Your task to perform on an android device: Go to CNN.com Image 0: 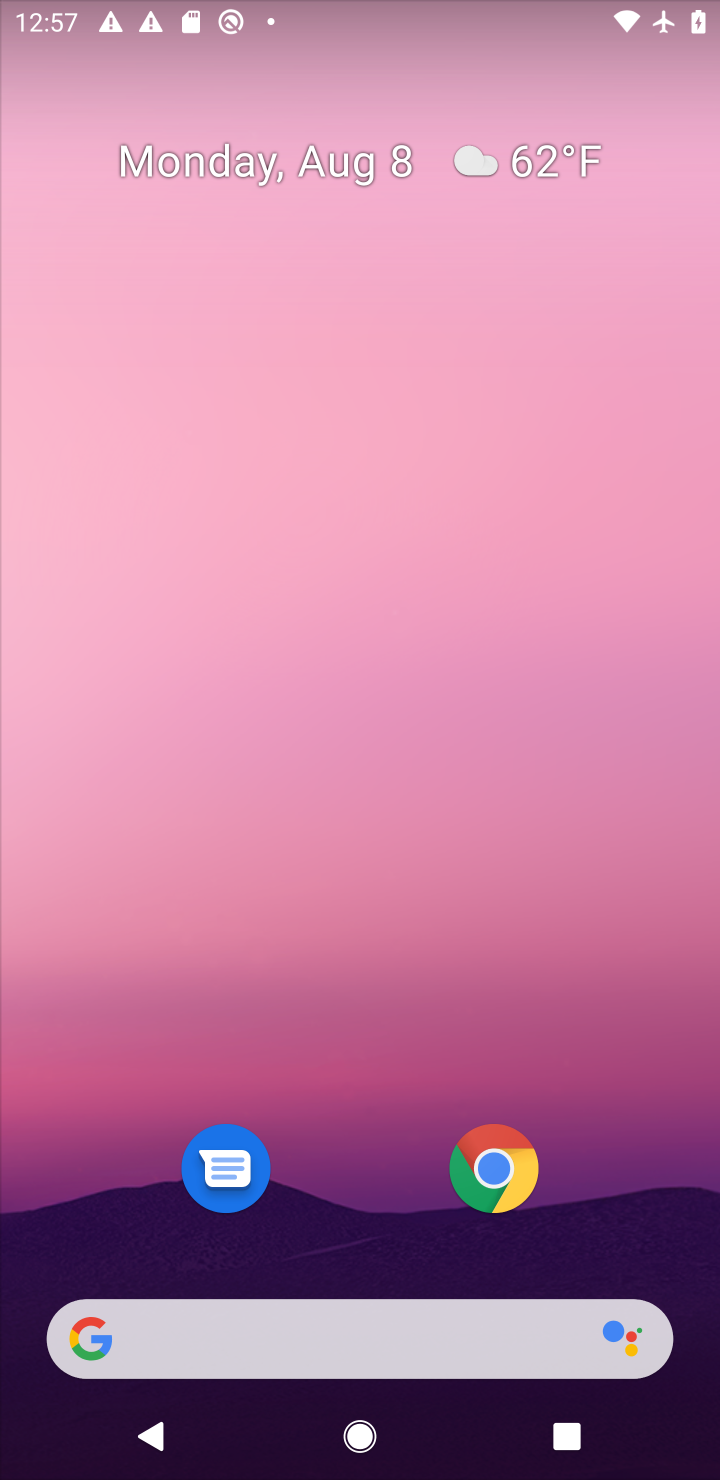
Step 0: drag from (375, 1269) to (336, 157)
Your task to perform on an android device: Go to CNN.com Image 1: 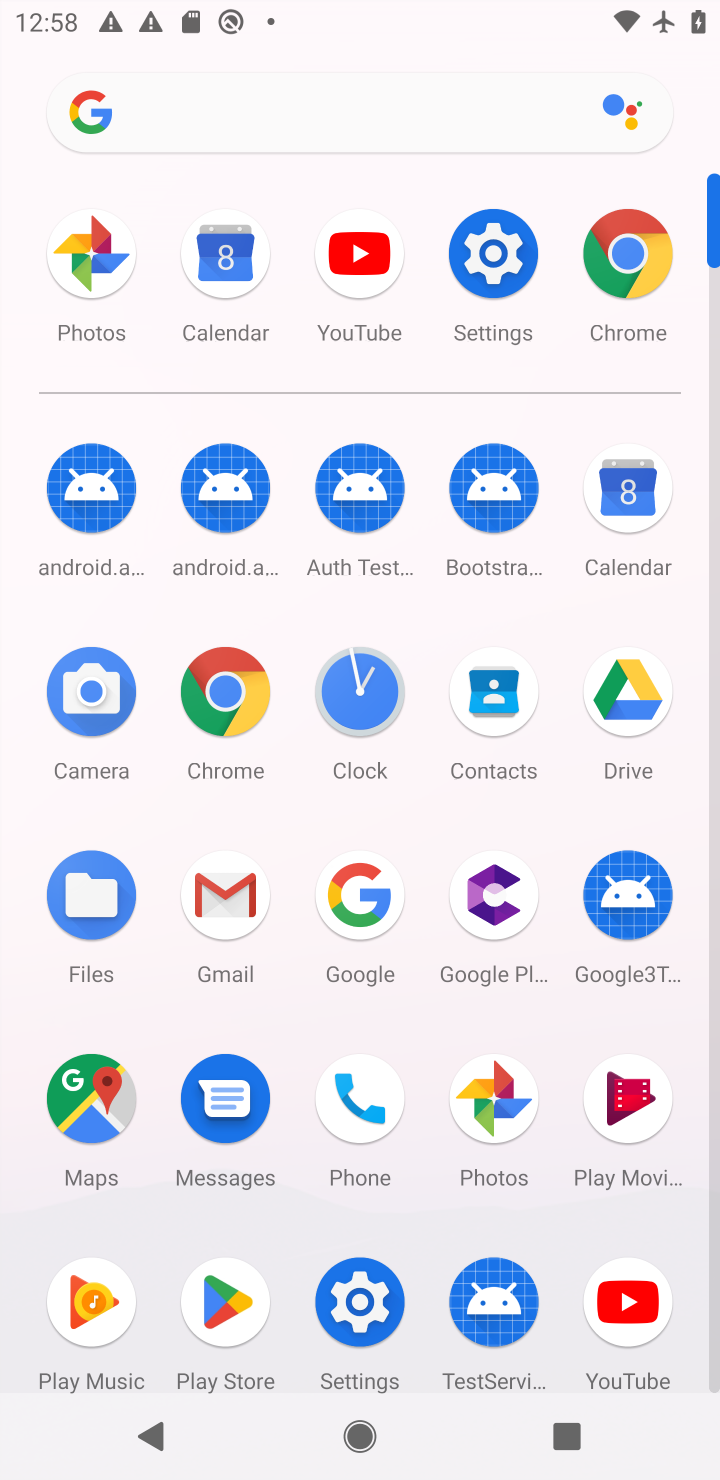
Step 1: click (347, 1308)
Your task to perform on an android device: Go to CNN.com Image 2: 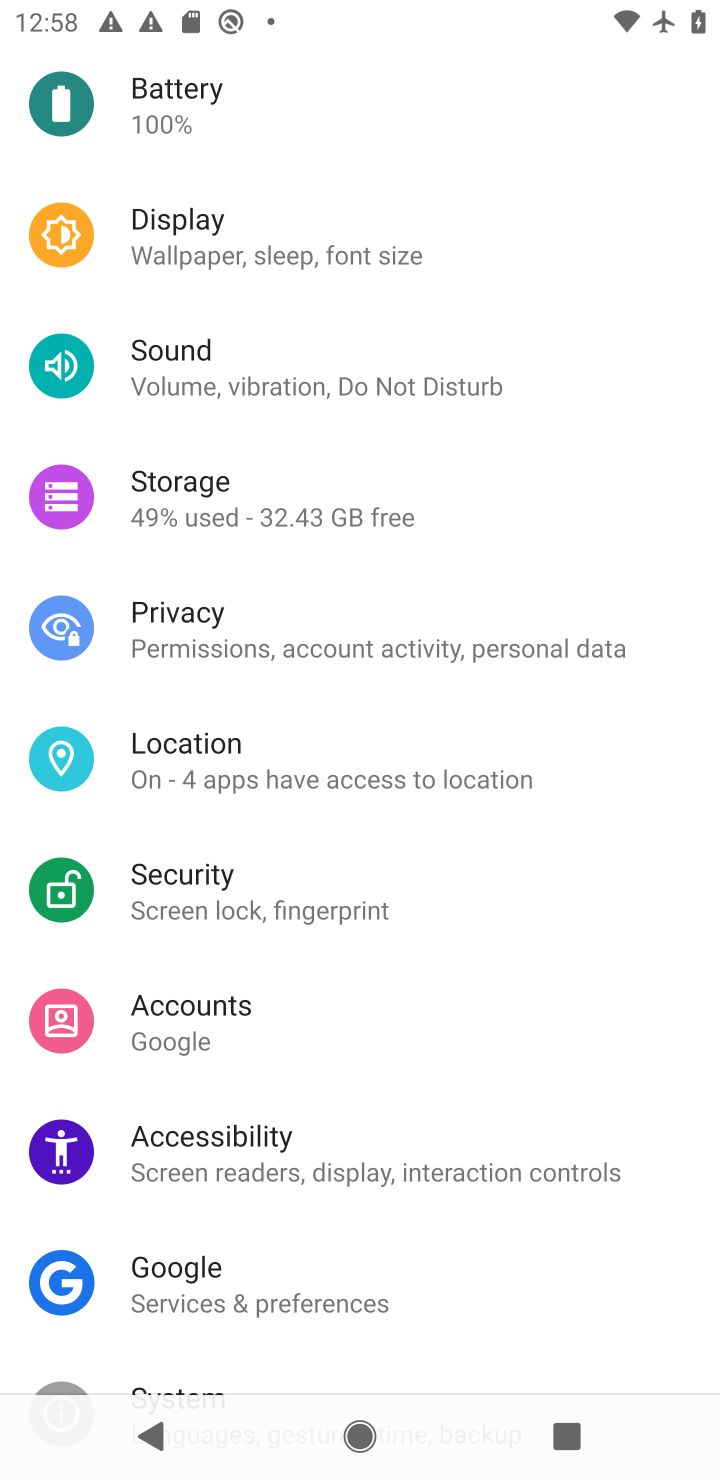
Step 2: press home button
Your task to perform on an android device: Go to CNN.com Image 3: 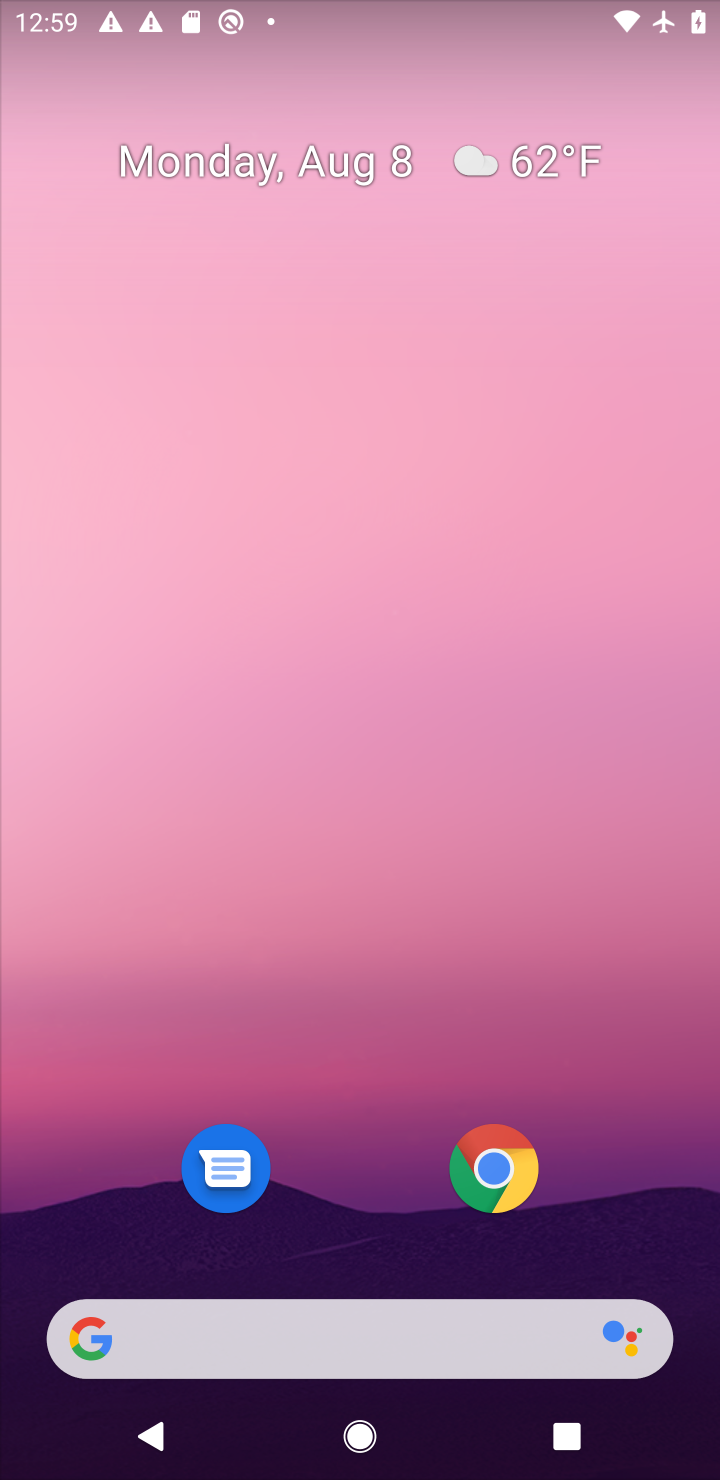
Step 3: click (484, 1167)
Your task to perform on an android device: Go to CNN.com Image 4: 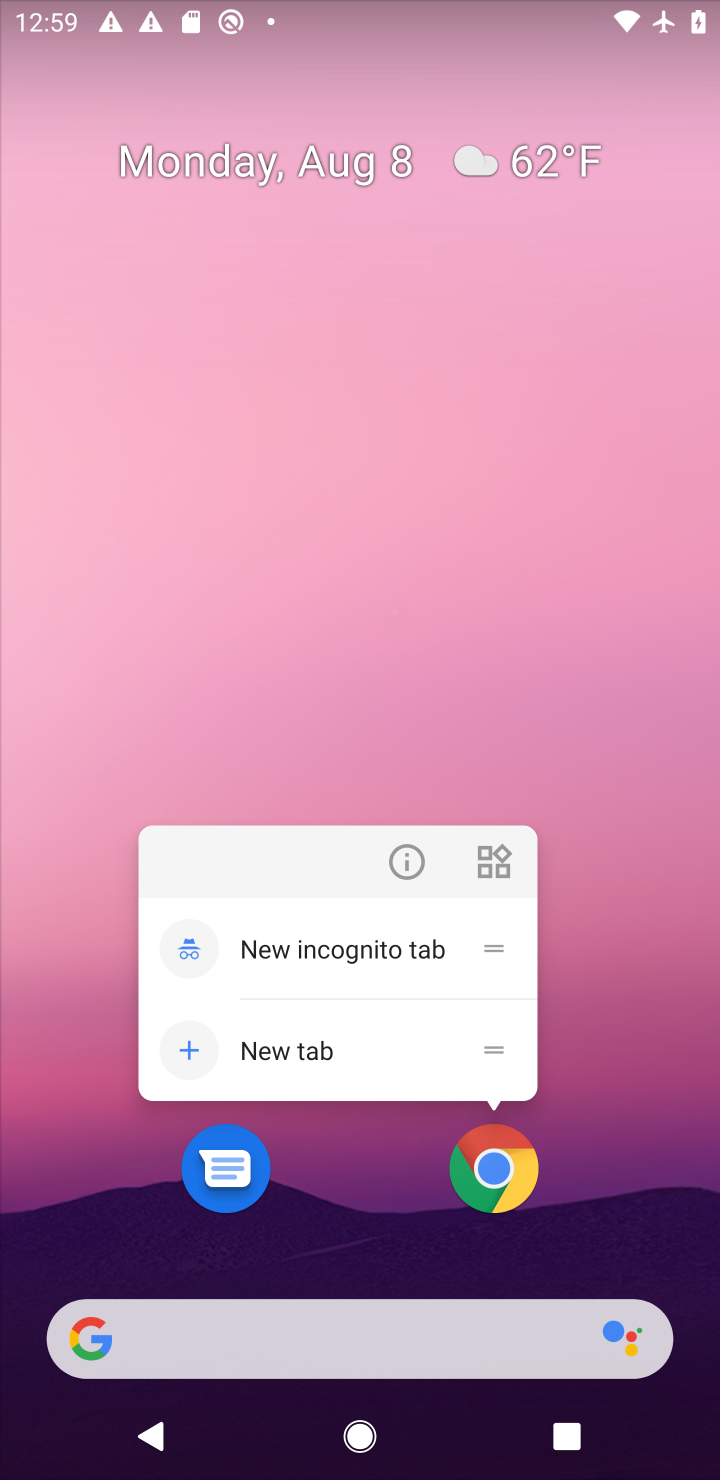
Step 4: click (484, 1167)
Your task to perform on an android device: Go to CNN.com Image 5: 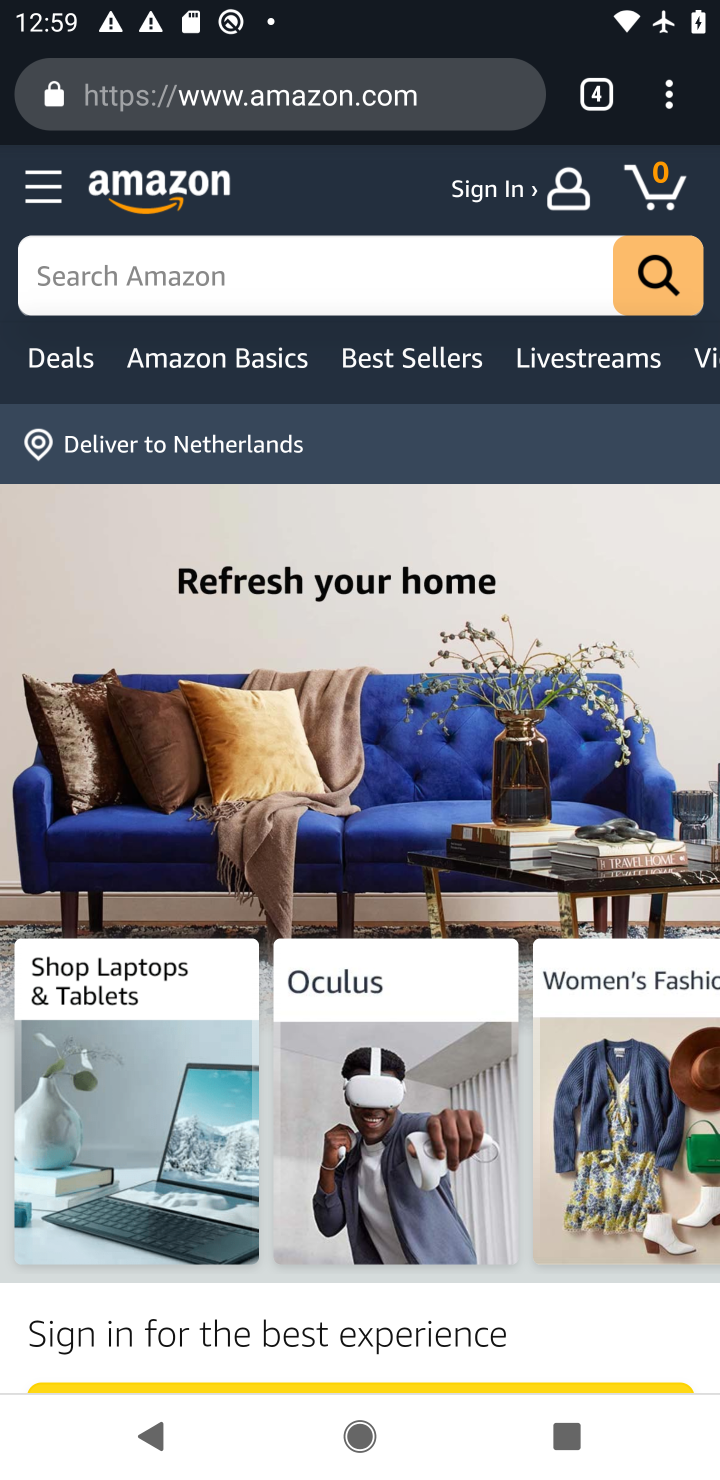
Step 5: click (293, 75)
Your task to perform on an android device: Go to CNN.com Image 6: 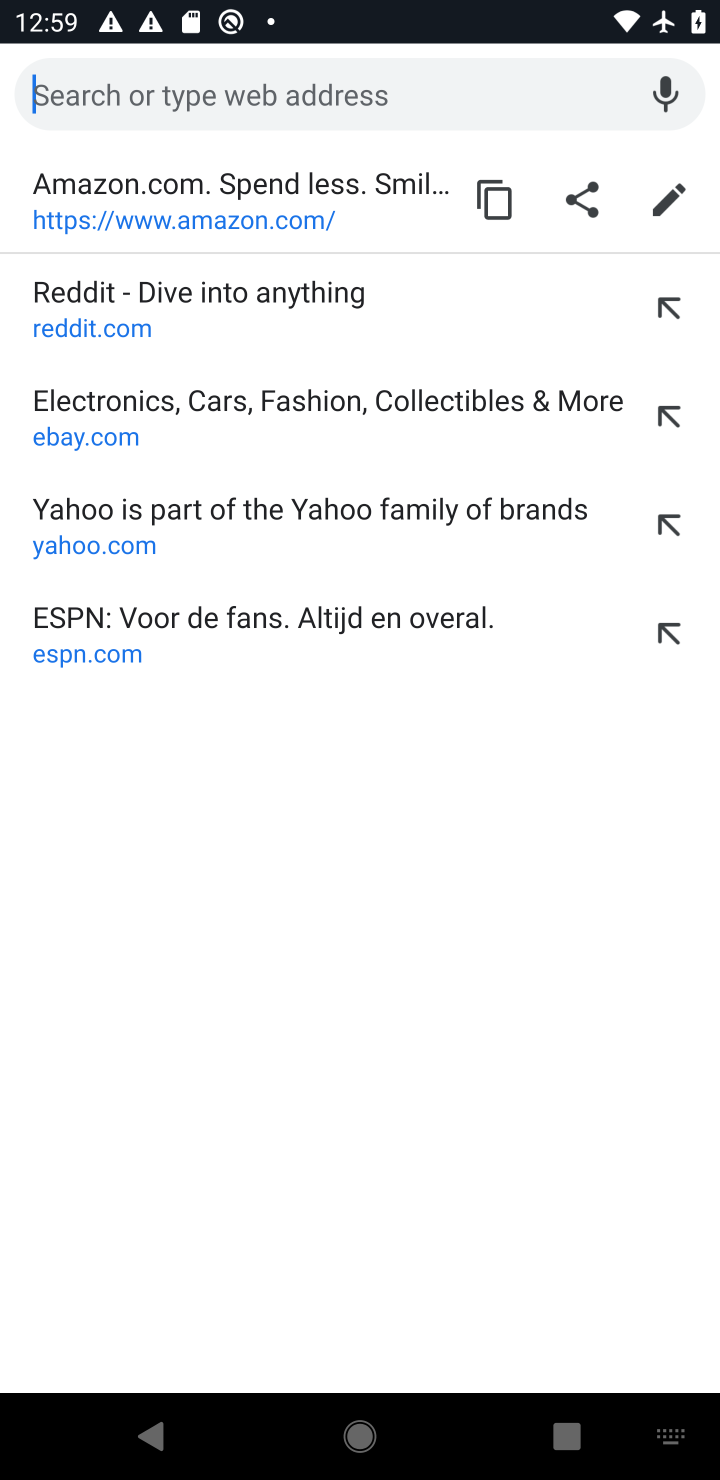
Step 6: type "cnn.com"
Your task to perform on an android device: Go to CNN.com Image 7: 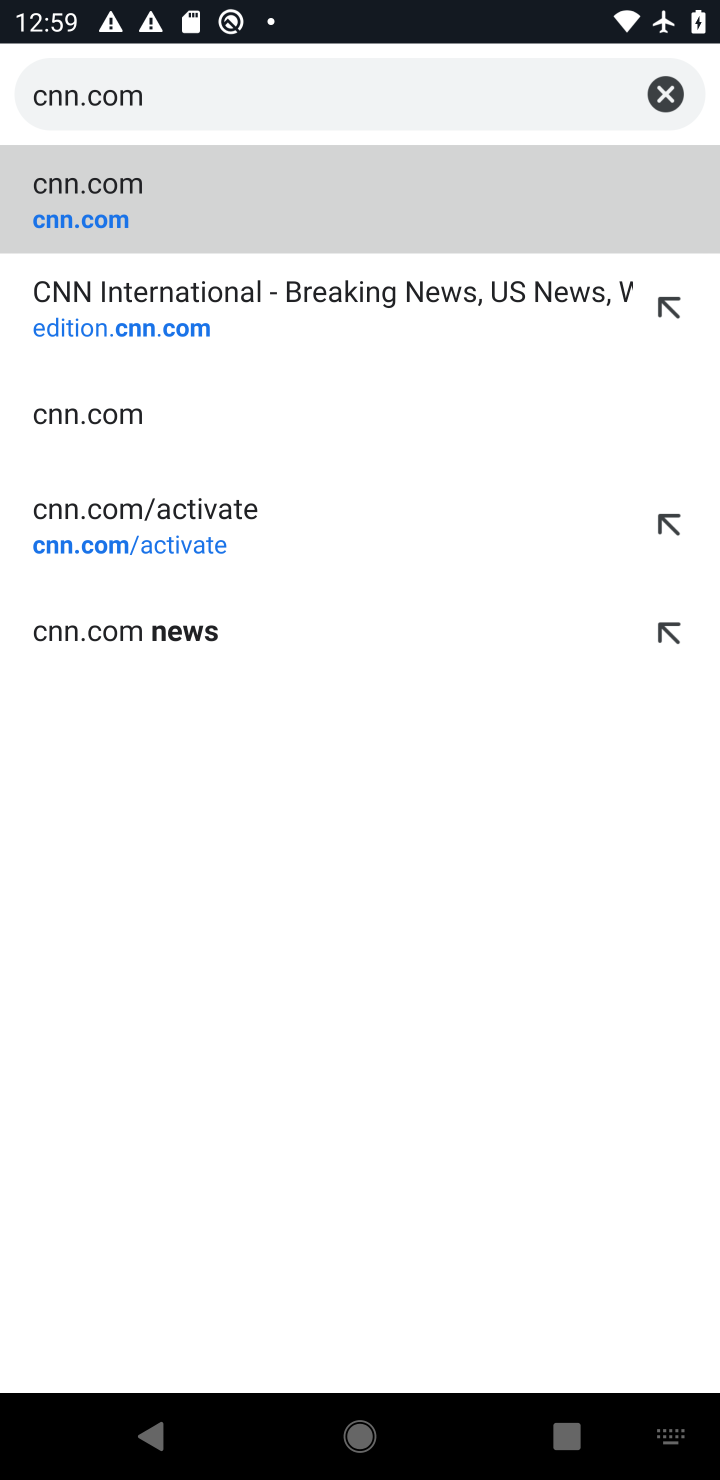
Step 7: click (203, 222)
Your task to perform on an android device: Go to CNN.com Image 8: 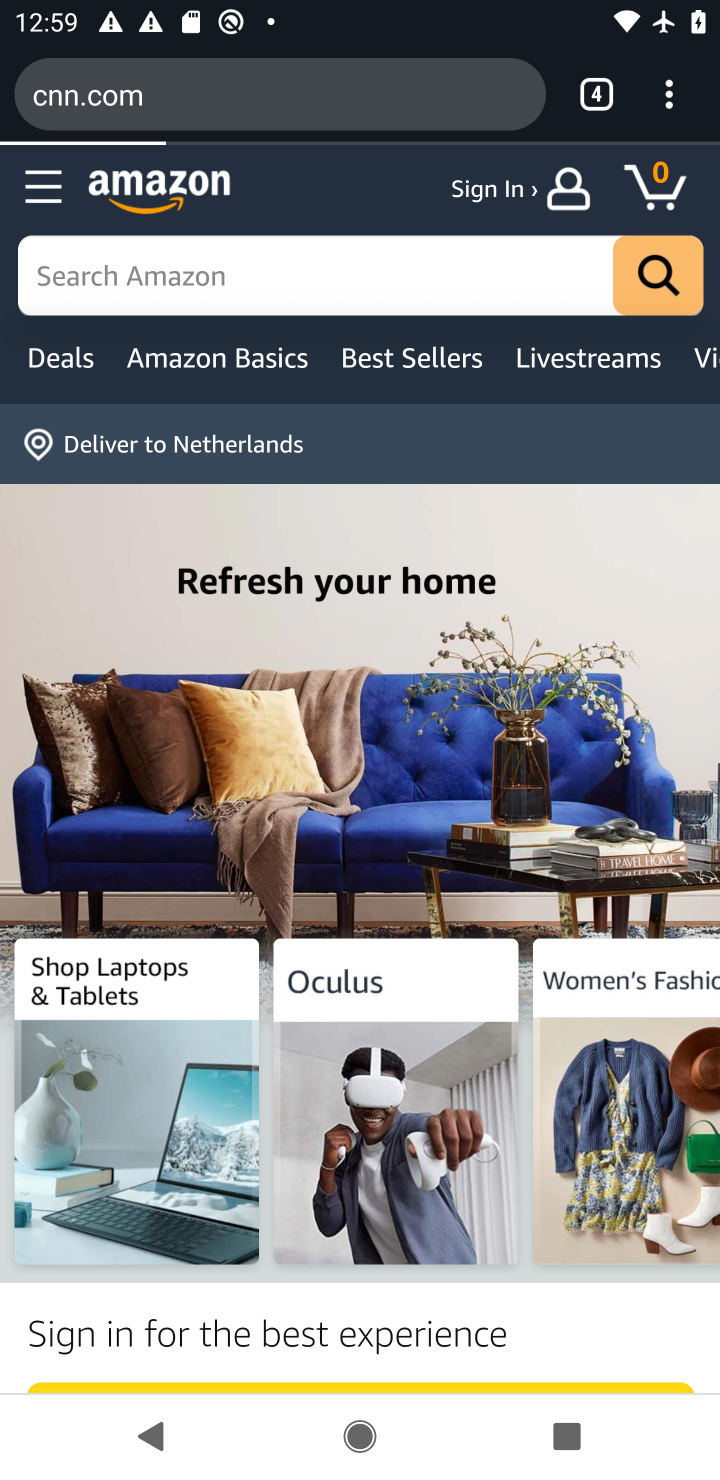
Step 8: task complete